Your task to perform on an android device: Open ESPN.com Image 0: 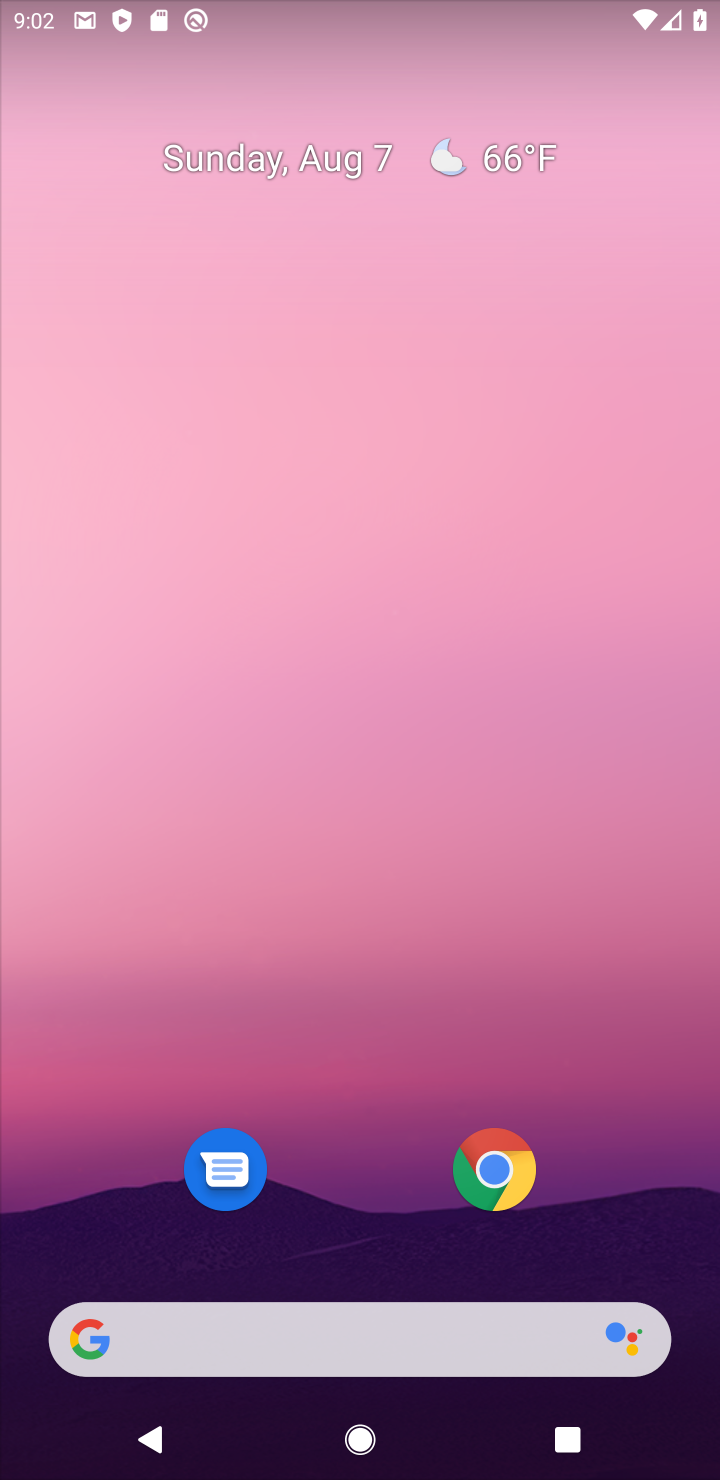
Step 0: click (501, 1198)
Your task to perform on an android device: Open ESPN.com Image 1: 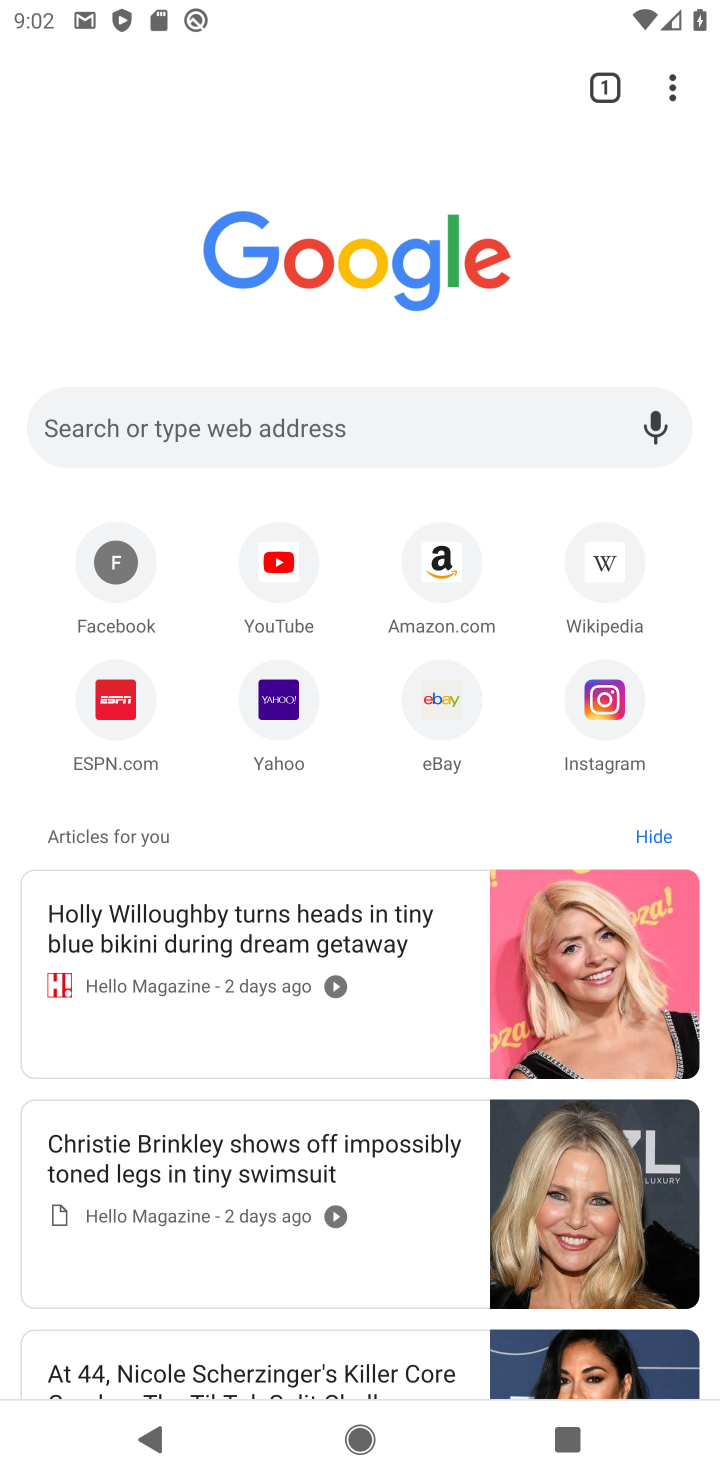
Step 1: click (47, 724)
Your task to perform on an android device: Open ESPN.com Image 2: 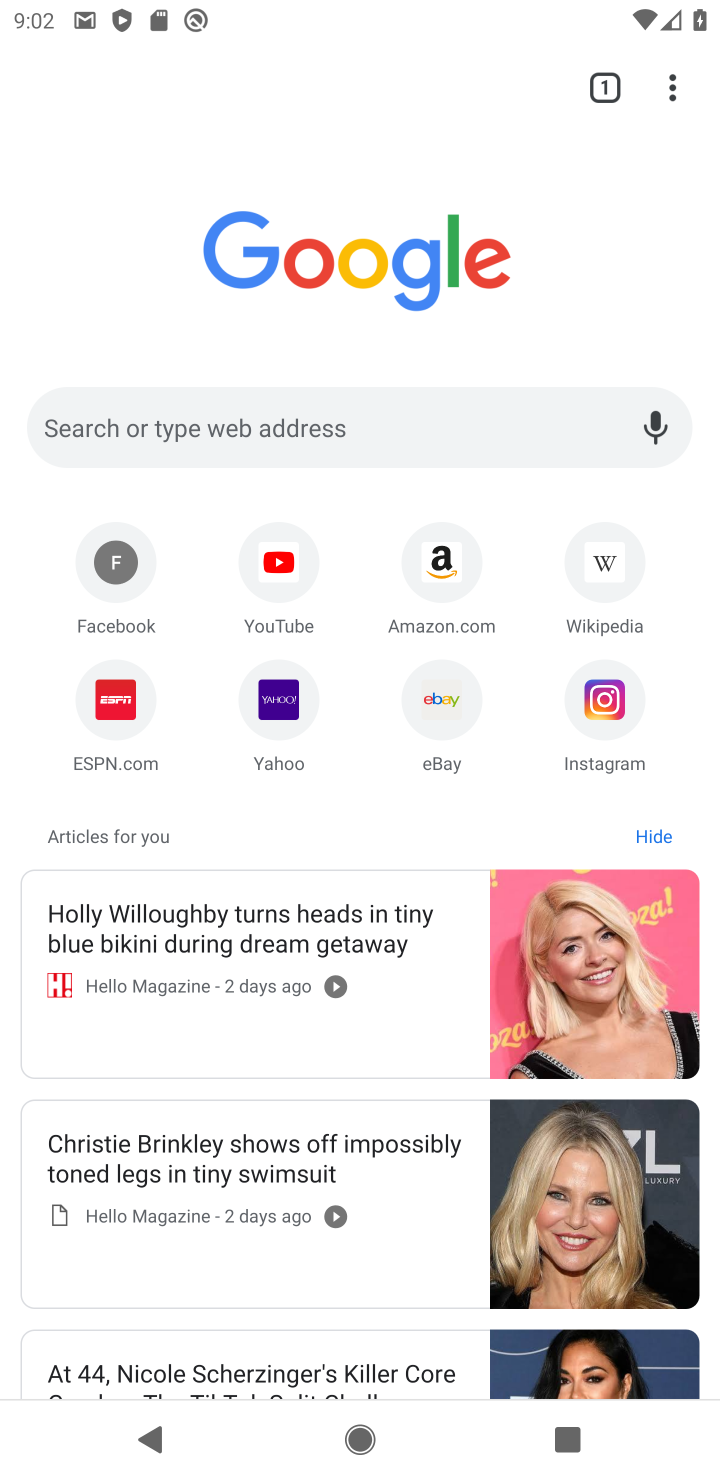
Step 2: click (100, 701)
Your task to perform on an android device: Open ESPN.com Image 3: 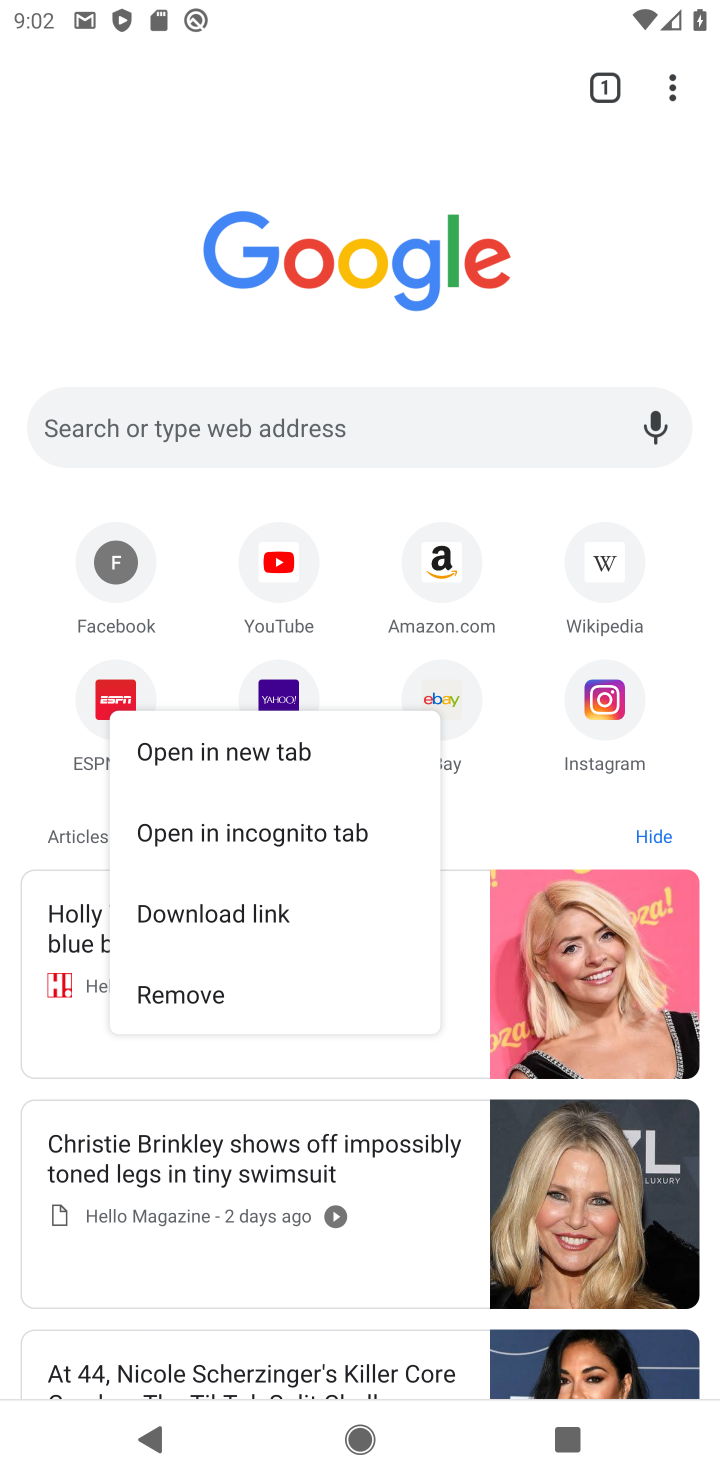
Step 3: click (102, 702)
Your task to perform on an android device: Open ESPN.com Image 4: 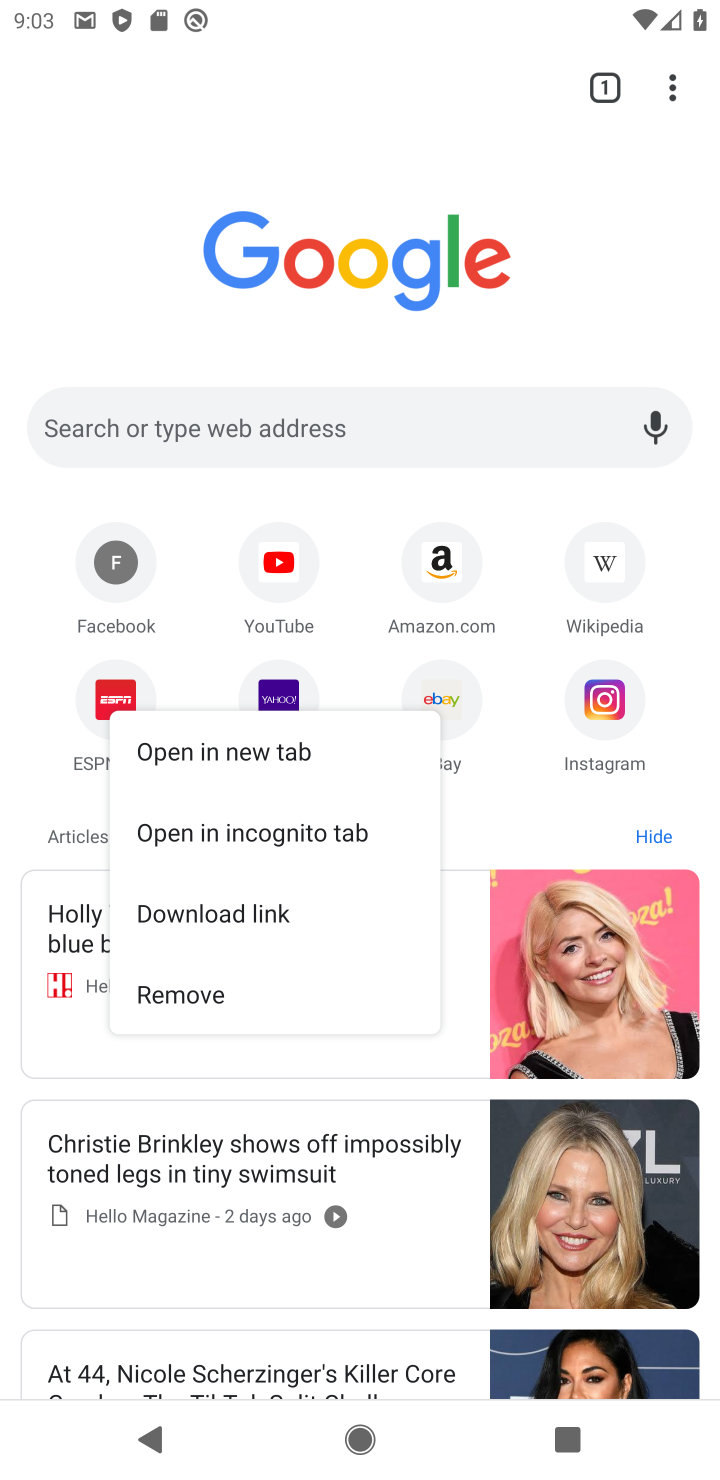
Step 4: click (113, 665)
Your task to perform on an android device: Open ESPN.com Image 5: 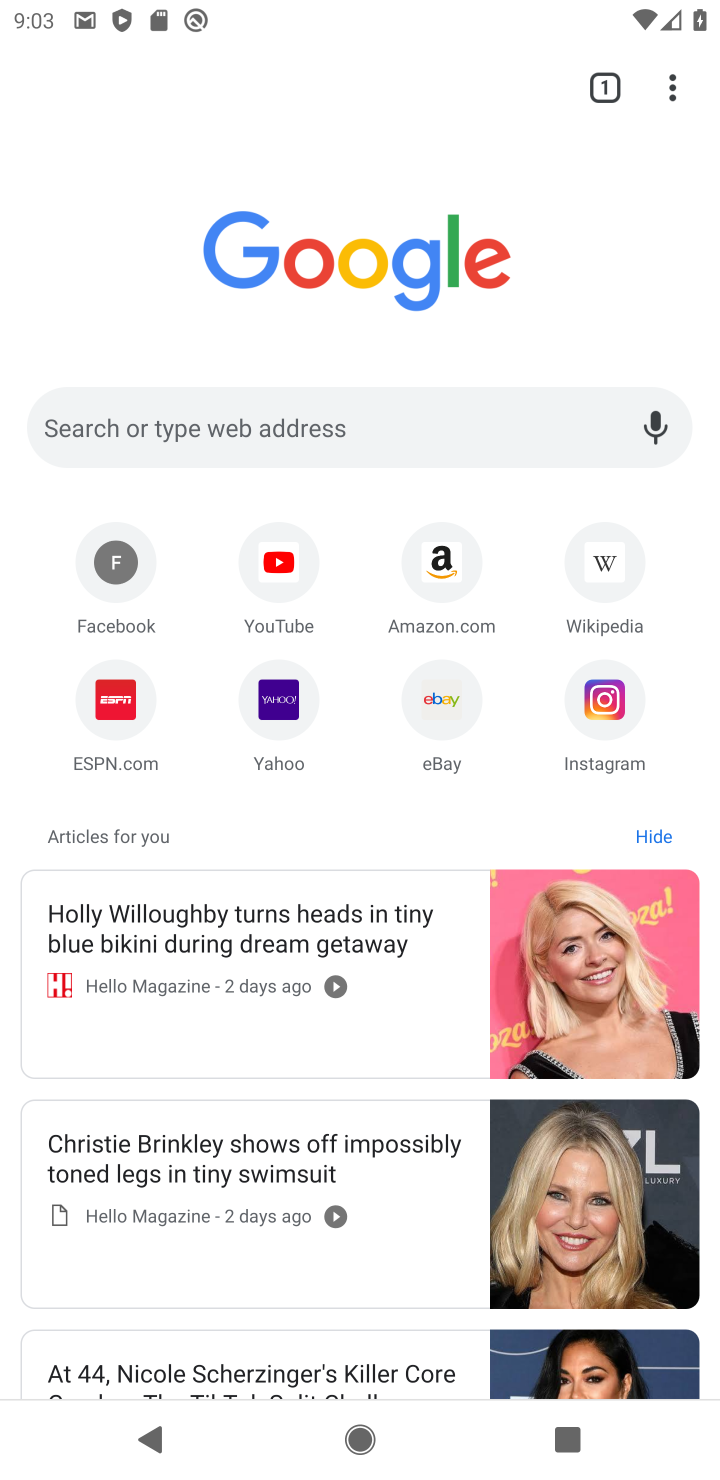
Step 5: click (109, 669)
Your task to perform on an android device: Open ESPN.com Image 6: 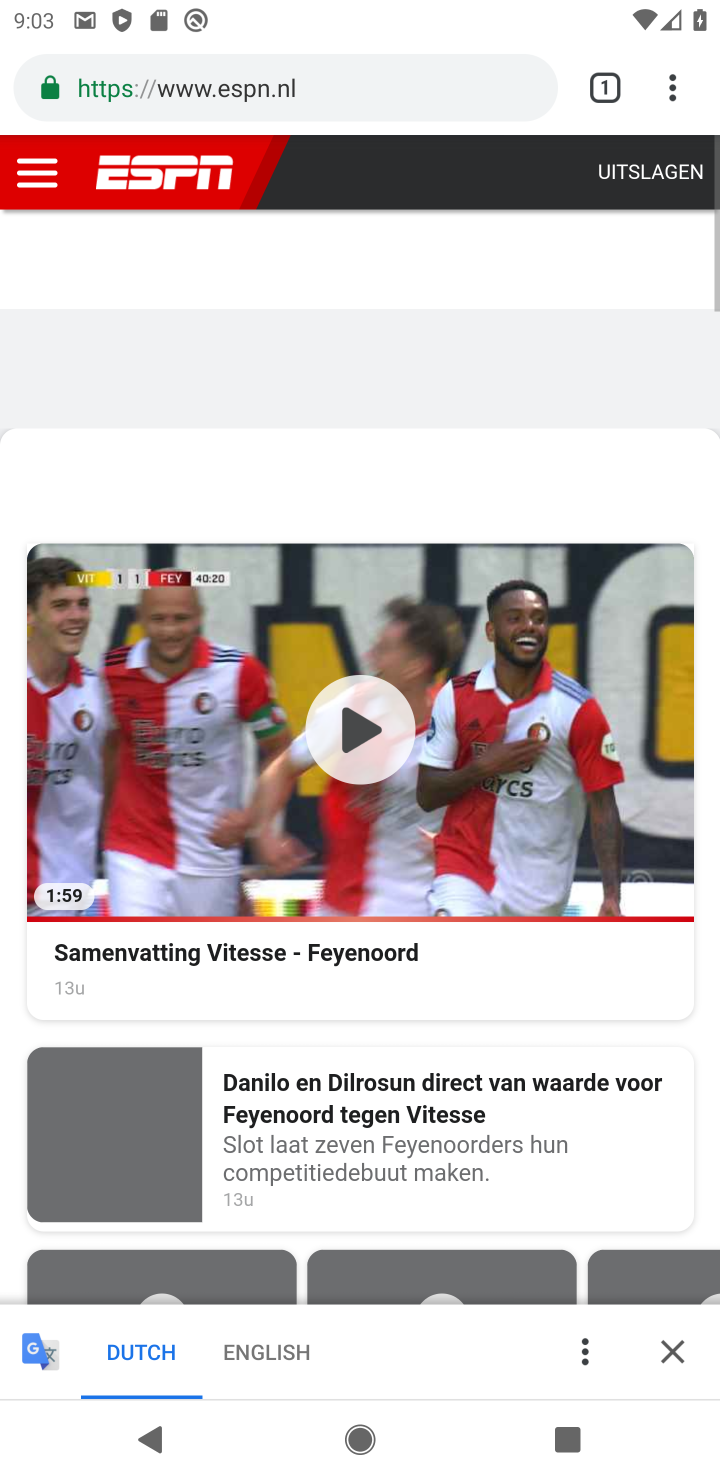
Step 6: task complete